Your task to perform on an android device: open a bookmark in the chrome app Image 0: 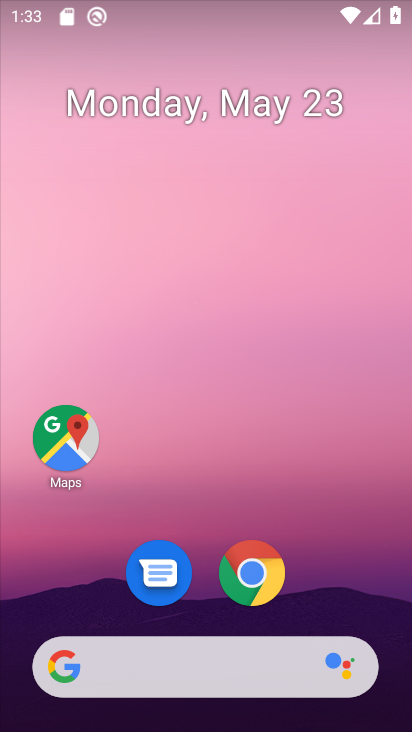
Step 0: click (262, 576)
Your task to perform on an android device: open a bookmark in the chrome app Image 1: 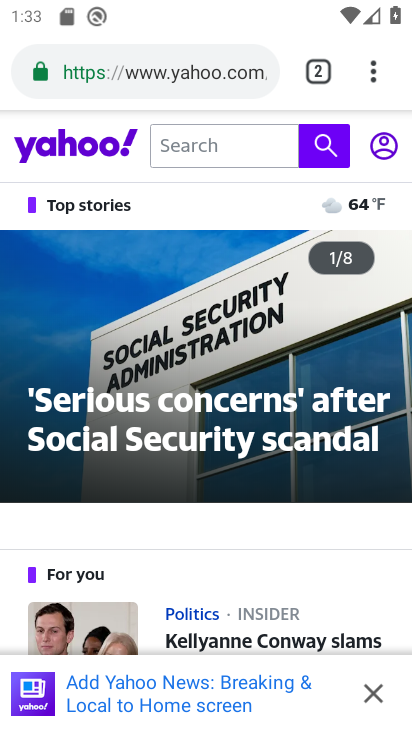
Step 1: click (386, 66)
Your task to perform on an android device: open a bookmark in the chrome app Image 2: 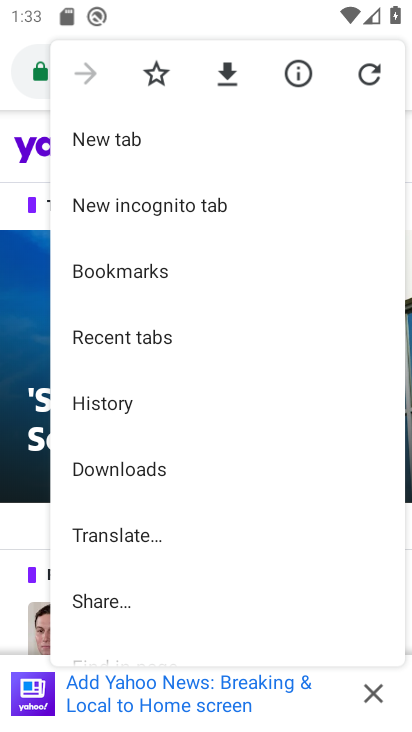
Step 2: click (123, 272)
Your task to perform on an android device: open a bookmark in the chrome app Image 3: 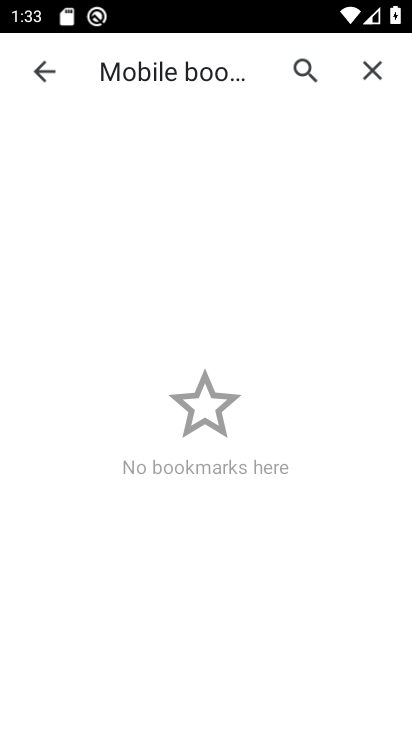
Step 3: task complete